Your task to perform on an android device: snooze an email in the gmail app Image 0: 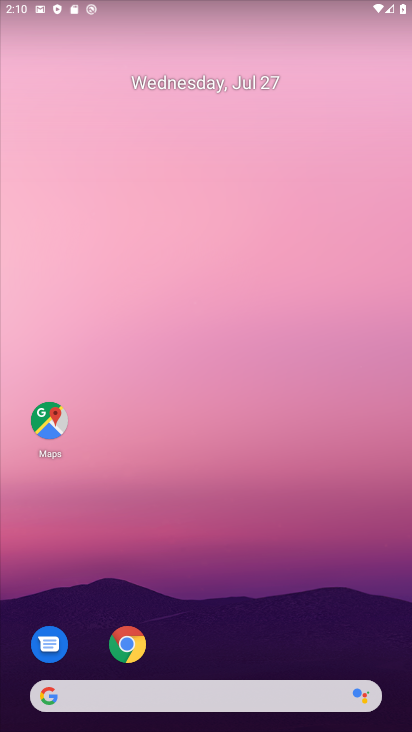
Step 0: drag from (234, 669) to (326, 20)
Your task to perform on an android device: snooze an email in the gmail app Image 1: 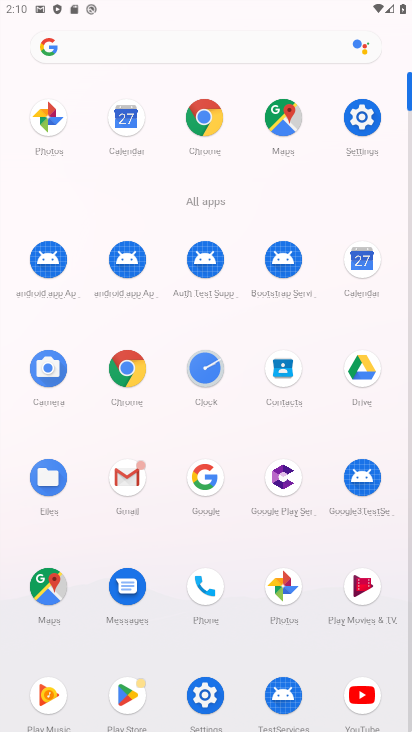
Step 1: click (123, 478)
Your task to perform on an android device: snooze an email in the gmail app Image 2: 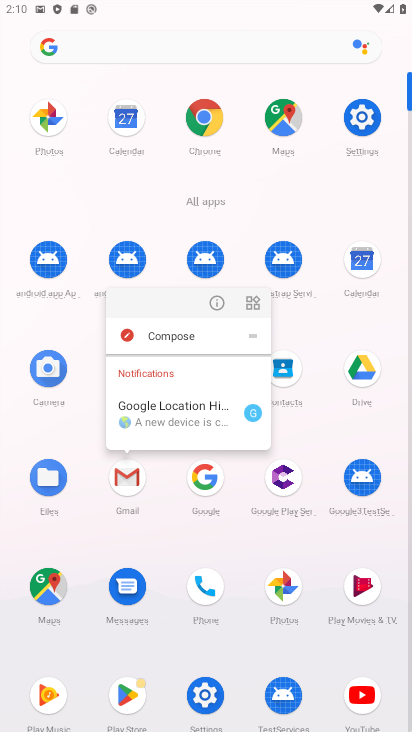
Step 2: click (124, 478)
Your task to perform on an android device: snooze an email in the gmail app Image 3: 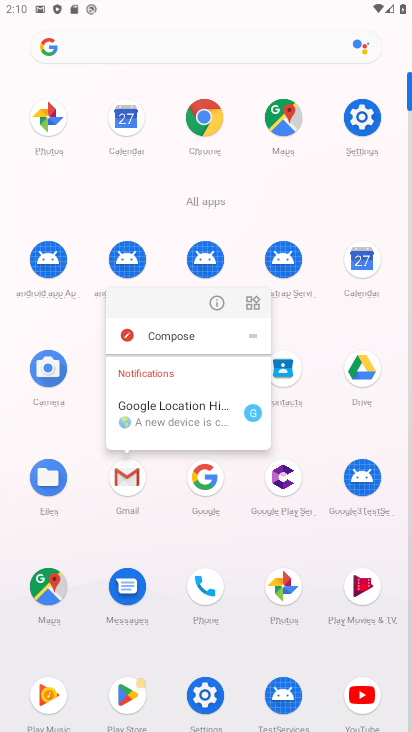
Step 3: click (126, 477)
Your task to perform on an android device: snooze an email in the gmail app Image 4: 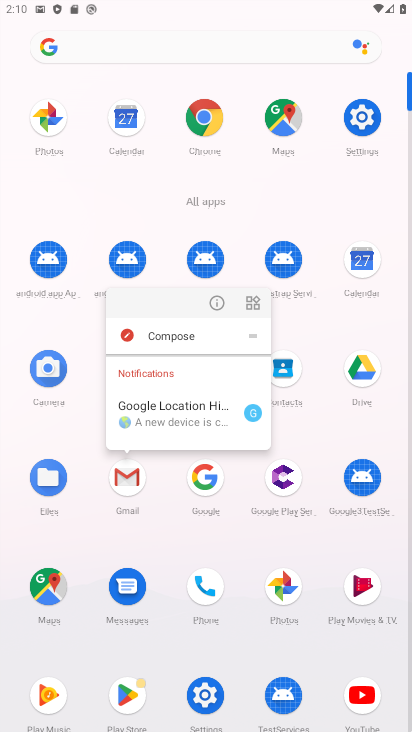
Step 4: click (129, 475)
Your task to perform on an android device: snooze an email in the gmail app Image 5: 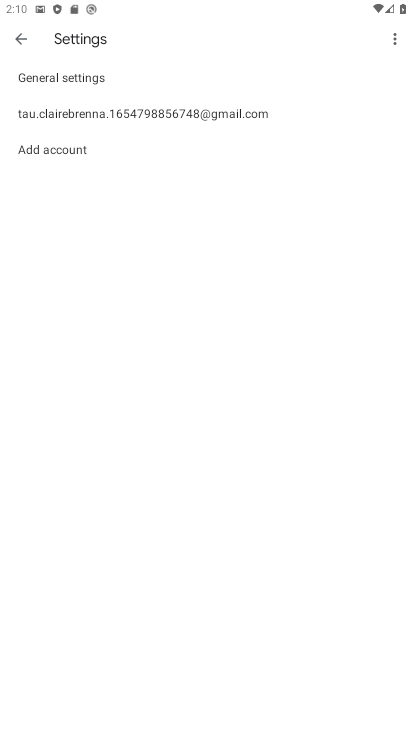
Step 5: click (22, 34)
Your task to perform on an android device: snooze an email in the gmail app Image 6: 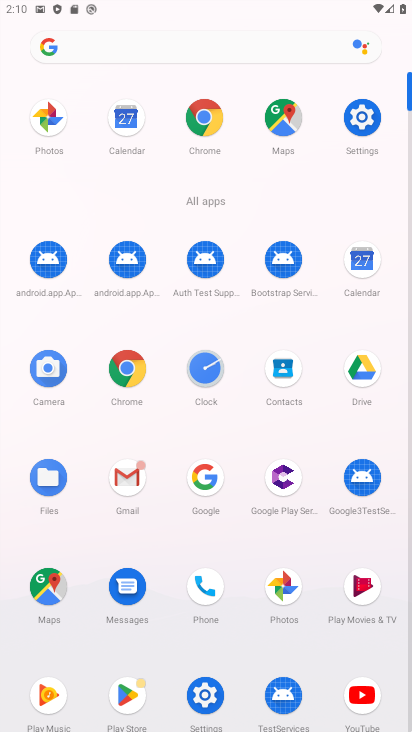
Step 6: click (122, 494)
Your task to perform on an android device: snooze an email in the gmail app Image 7: 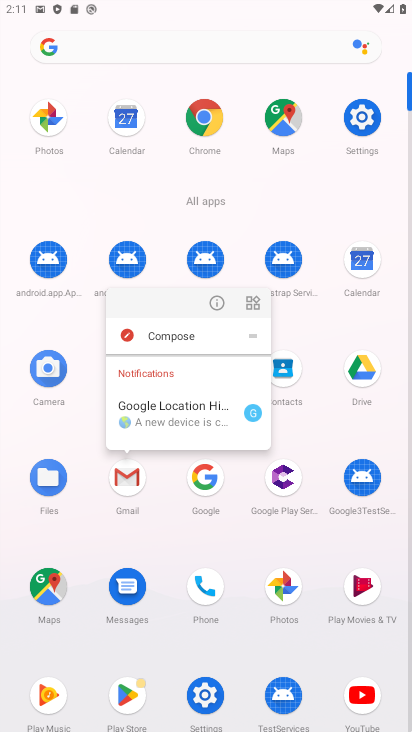
Step 7: click (131, 492)
Your task to perform on an android device: snooze an email in the gmail app Image 8: 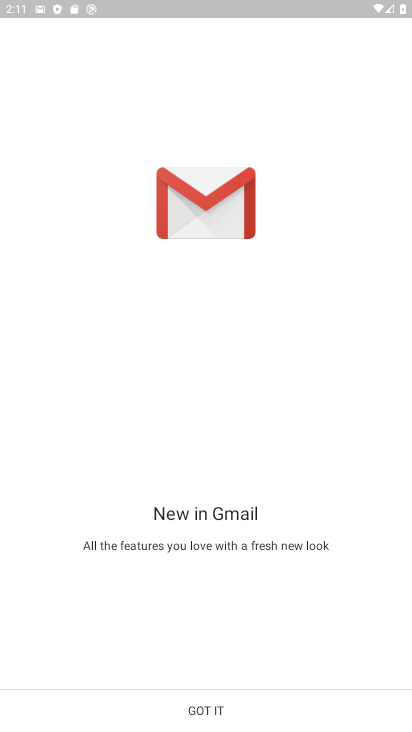
Step 8: click (212, 714)
Your task to perform on an android device: snooze an email in the gmail app Image 9: 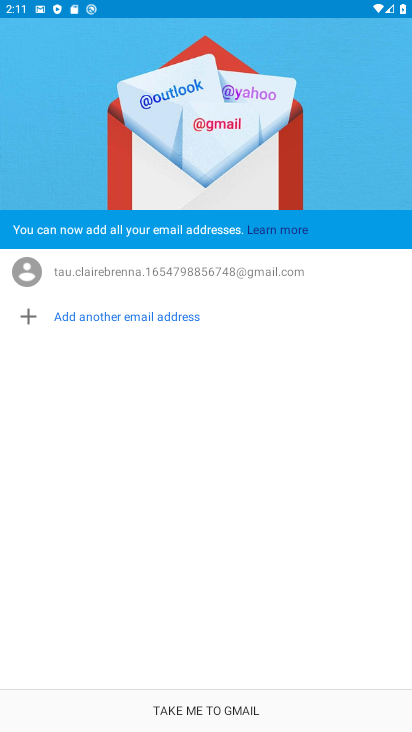
Step 9: click (240, 706)
Your task to perform on an android device: snooze an email in the gmail app Image 10: 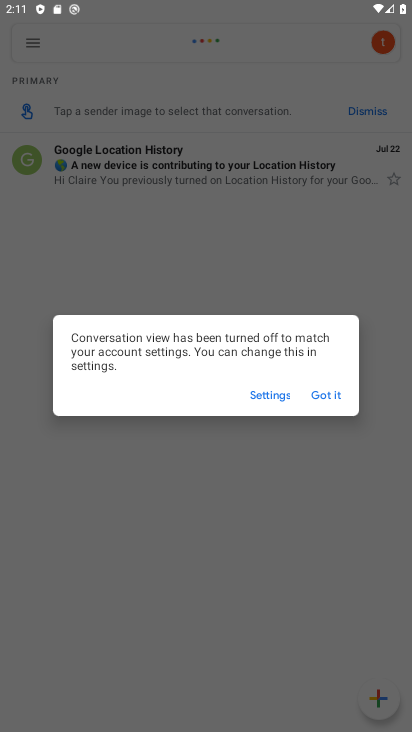
Step 10: click (327, 395)
Your task to perform on an android device: snooze an email in the gmail app Image 11: 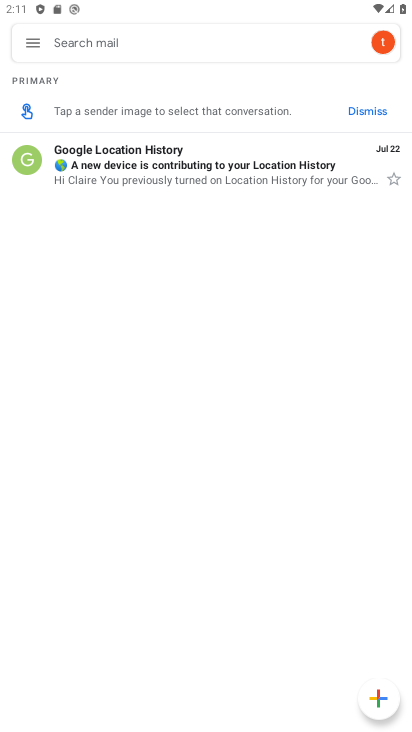
Step 11: click (22, 162)
Your task to perform on an android device: snooze an email in the gmail app Image 12: 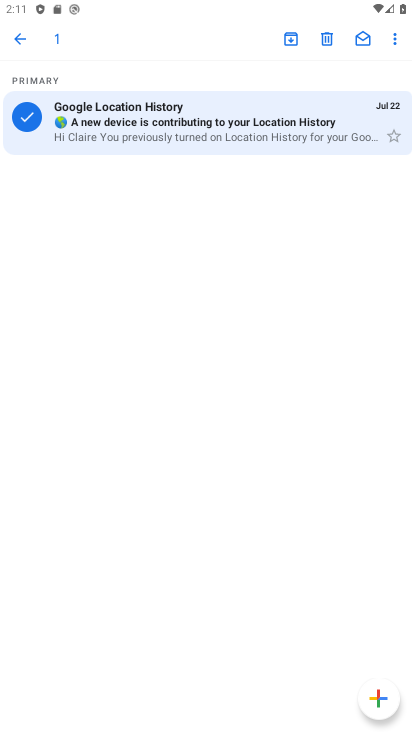
Step 12: click (394, 29)
Your task to perform on an android device: snooze an email in the gmail app Image 13: 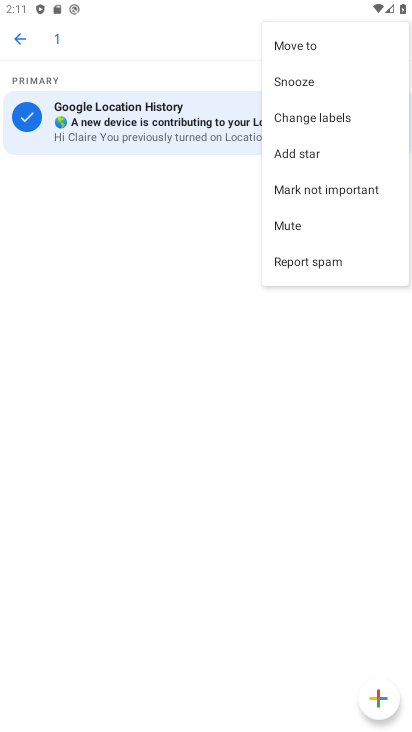
Step 13: click (304, 84)
Your task to perform on an android device: snooze an email in the gmail app Image 14: 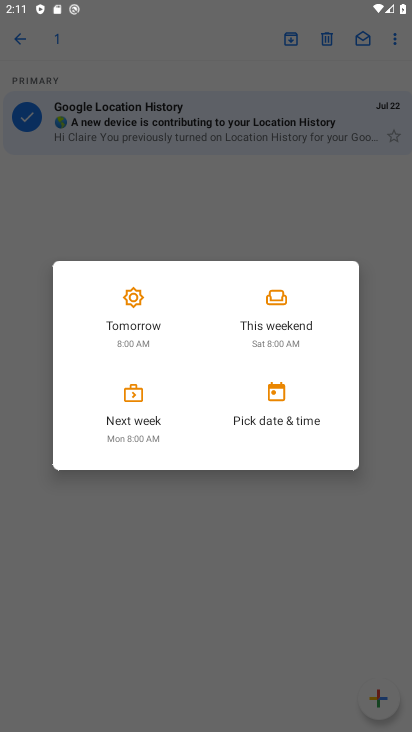
Step 14: click (137, 313)
Your task to perform on an android device: snooze an email in the gmail app Image 15: 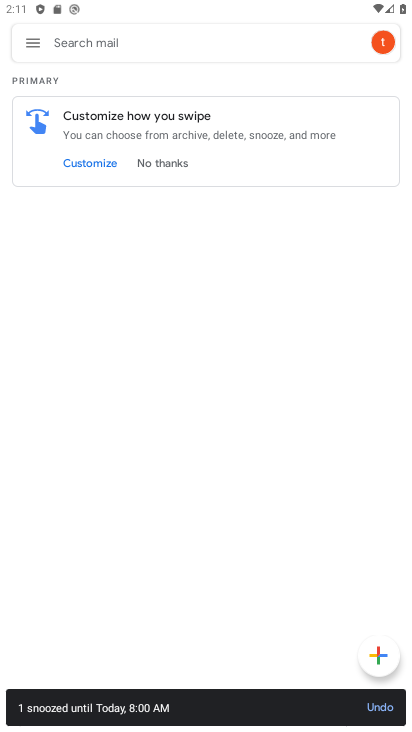
Step 15: task complete